Your task to perform on an android device: change text size in settings app Image 0: 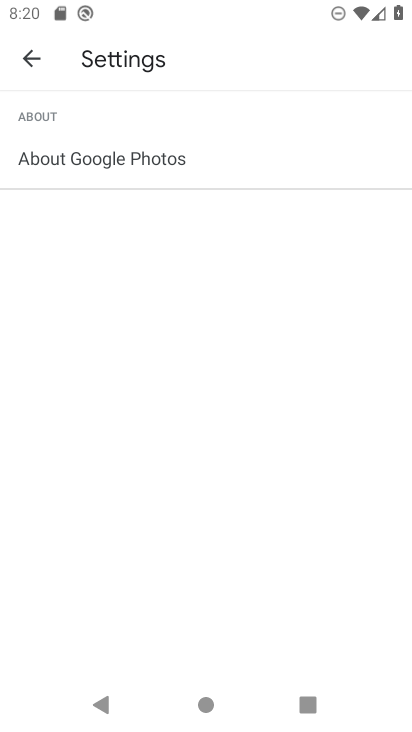
Step 0: press home button
Your task to perform on an android device: change text size in settings app Image 1: 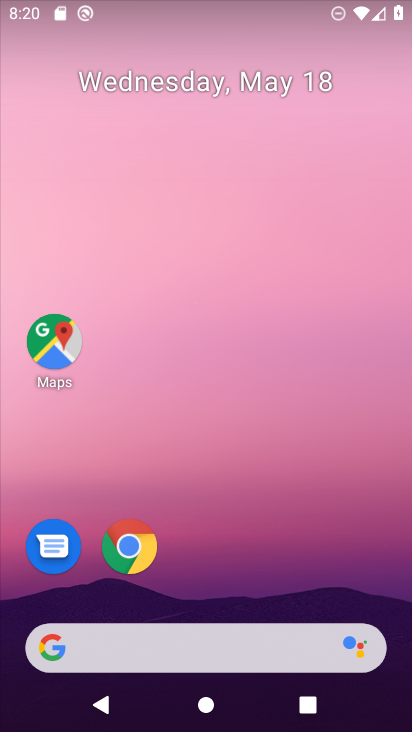
Step 1: drag from (288, 688) to (336, 172)
Your task to perform on an android device: change text size in settings app Image 2: 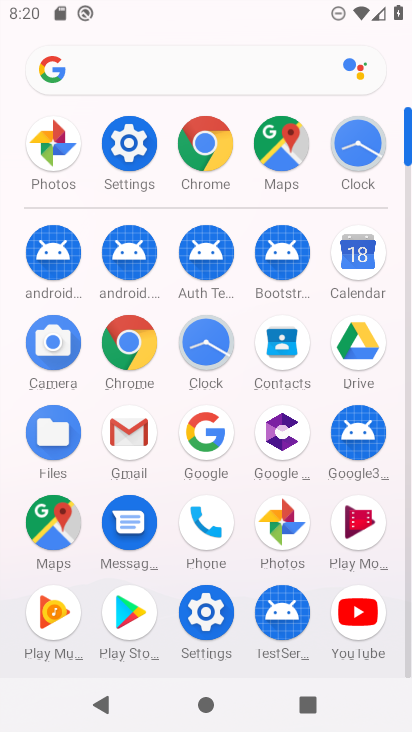
Step 2: click (120, 160)
Your task to perform on an android device: change text size in settings app Image 3: 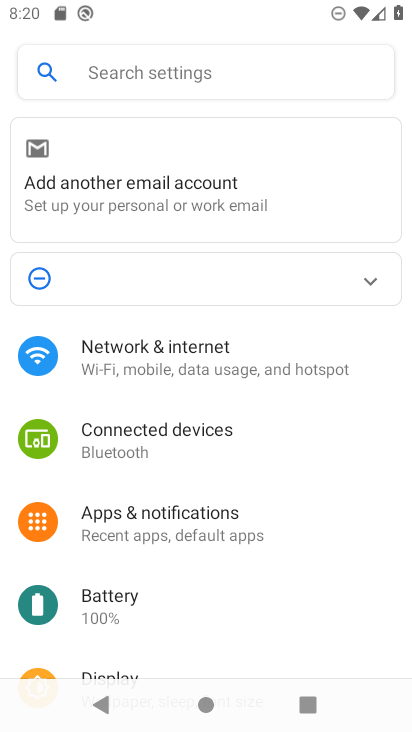
Step 3: click (130, 84)
Your task to perform on an android device: change text size in settings app Image 4: 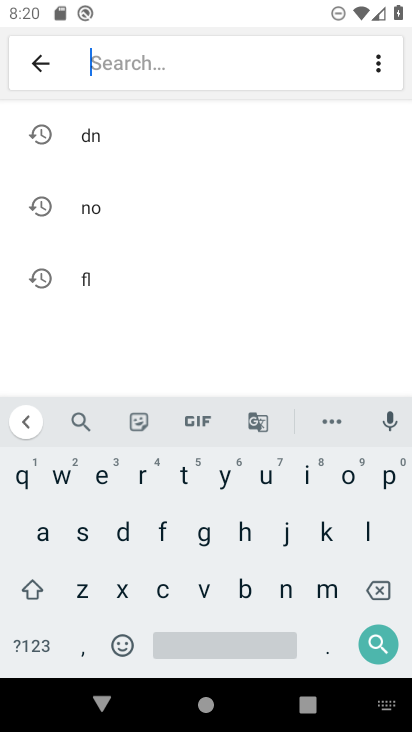
Step 4: click (77, 531)
Your task to perform on an android device: change text size in settings app Image 5: 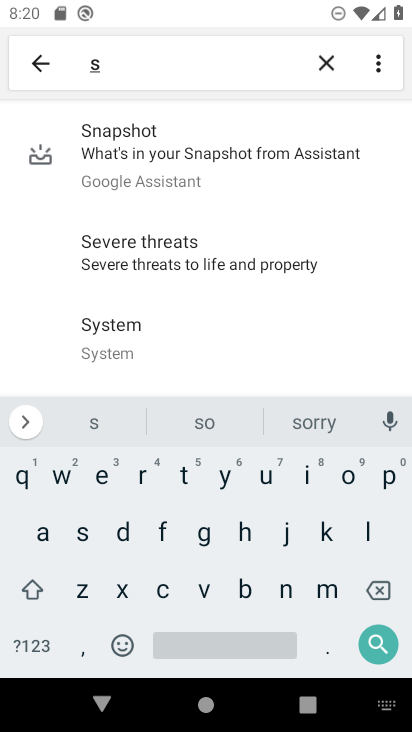
Step 5: click (304, 476)
Your task to perform on an android device: change text size in settings app Image 6: 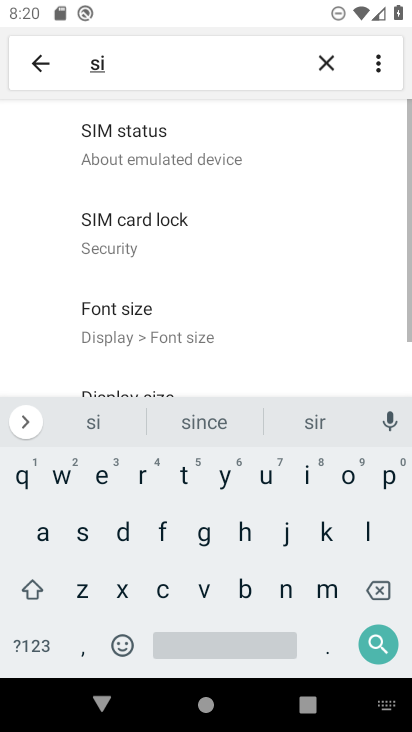
Step 6: click (75, 582)
Your task to perform on an android device: change text size in settings app Image 7: 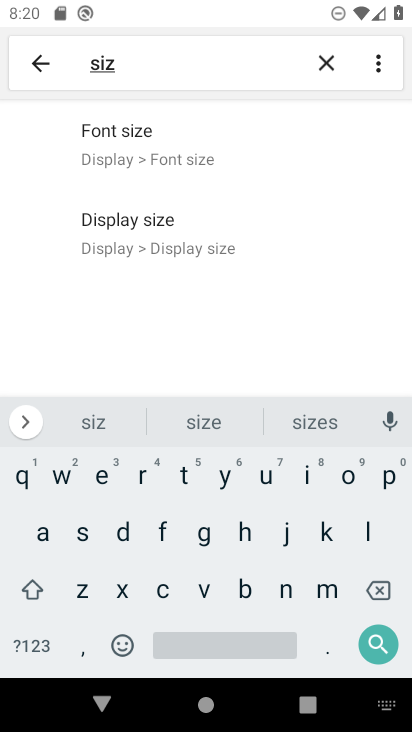
Step 7: click (172, 127)
Your task to perform on an android device: change text size in settings app Image 8: 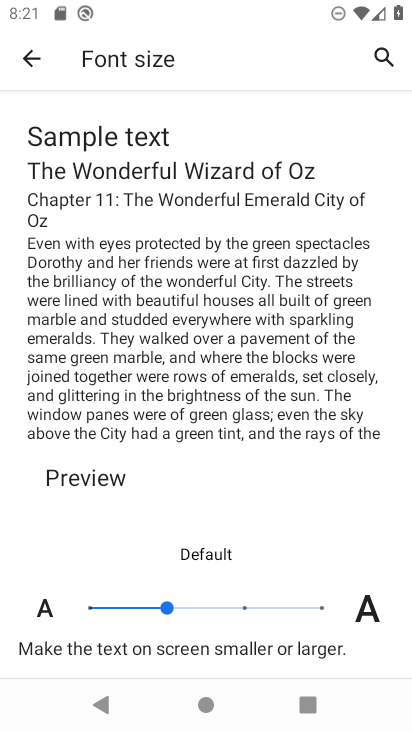
Step 8: task complete